Your task to perform on an android device: Open sound settings Image 0: 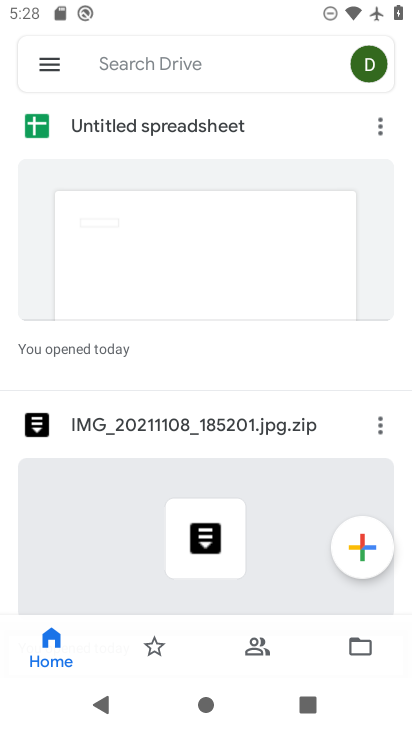
Step 0: press home button
Your task to perform on an android device: Open sound settings Image 1: 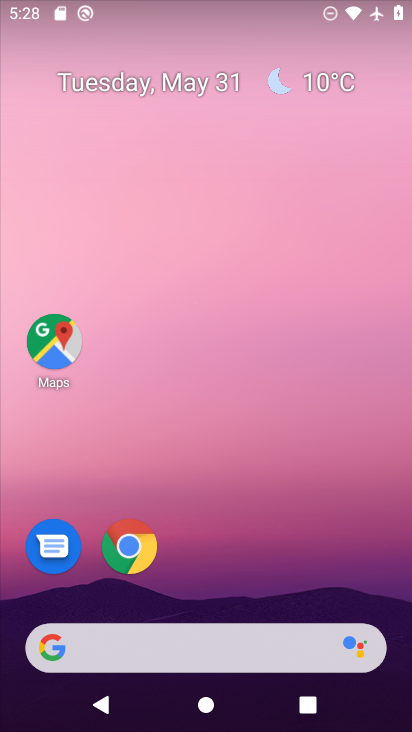
Step 1: drag from (238, 309) to (214, 87)
Your task to perform on an android device: Open sound settings Image 2: 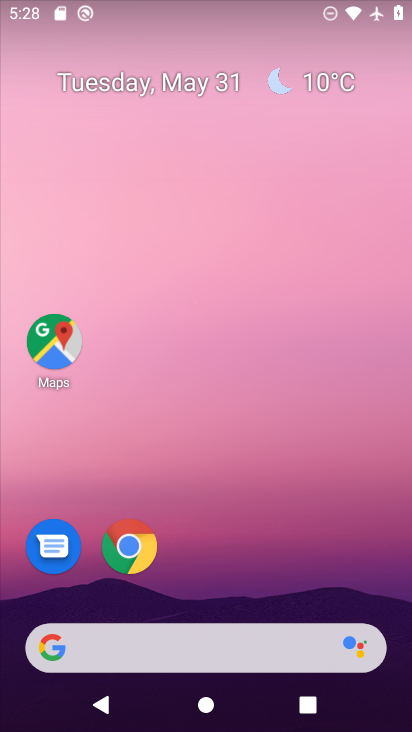
Step 2: drag from (258, 376) to (204, 5)
Your task to perform on an android device: Open sound settings Image 3: 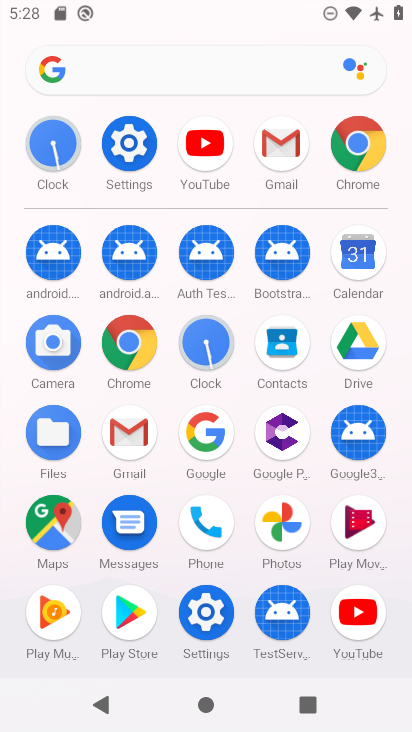
Step 3: click (112, 147)
Your task to perform on an android device: Open sound settings Image 4: 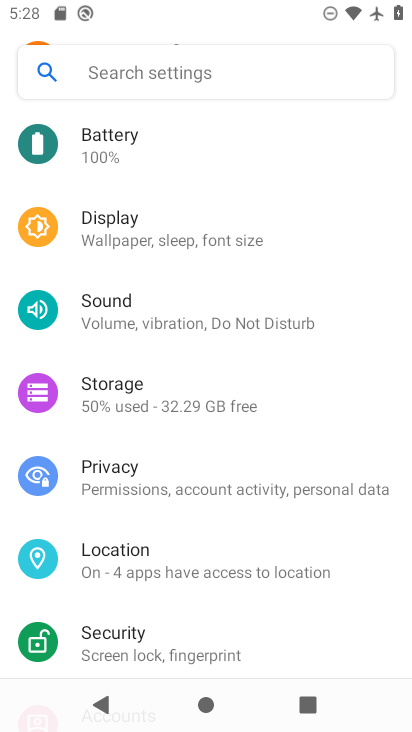
Step 4: click (187, 303)
Your task to perform on an android device: Open sound settings Image 5: 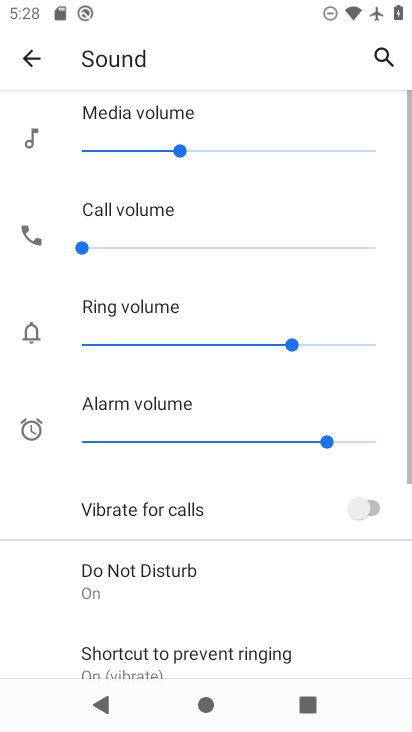
Step 5: task complete